Your task to perform on an android device: Open wifi settings Image 0: 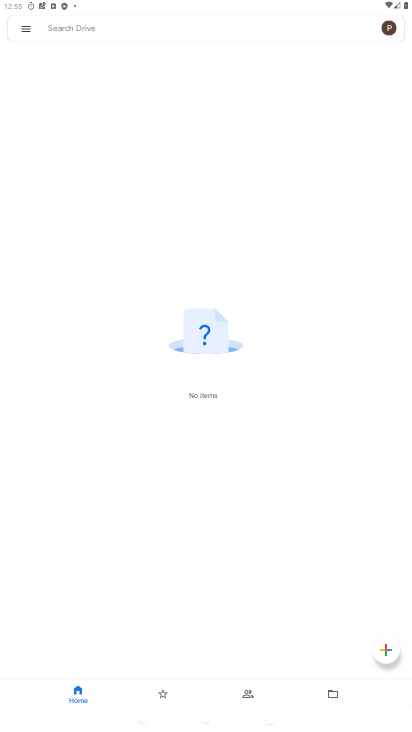
Step 0: press home button
Your task to perform on an android device: Open wifi settings Image 1: 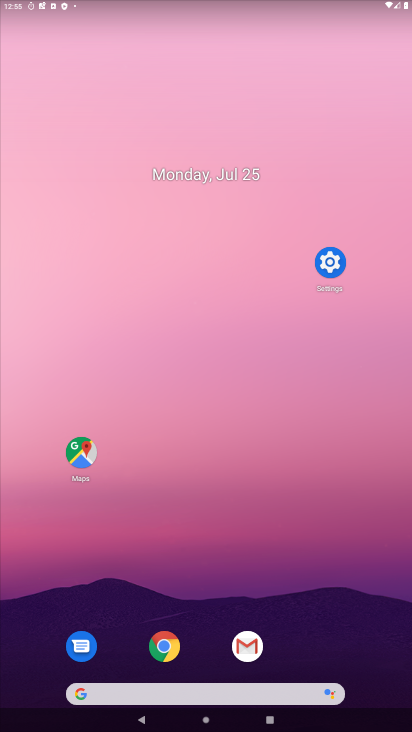
Step 1: click (326, 263)
Your task to perform on an android device: Open wifi settings Image 2: 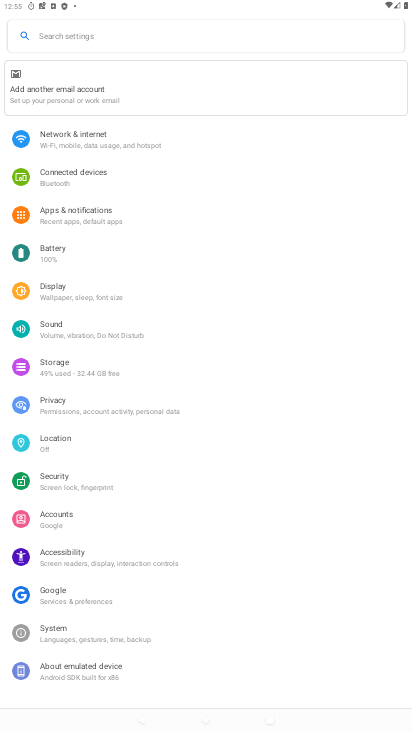
Step 2: click (102, 147)
Your task to perform on an android device: Open wifi settings Image 3: 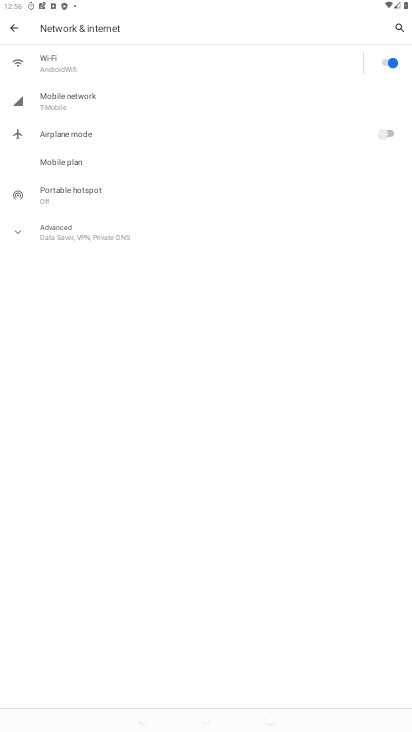
Step 3: click (74, 62)
Your task to perform on an android device: Open wifi settings Image 4: 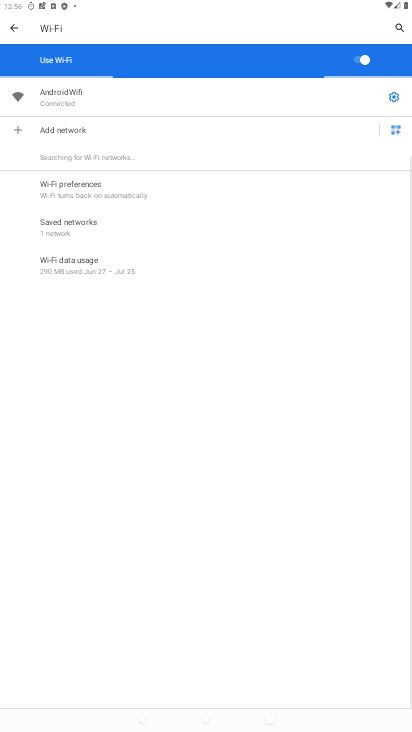
Step 4: task complete